Your task to perform on an android device: install app "Google Sheets" Image 0: 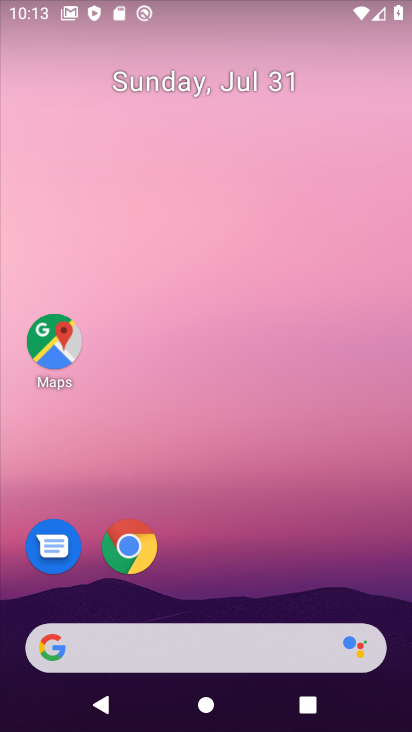
Step 0: drag from (219, 646) to (337, 10)
Your task to perform on an android device: install app "Google Sheets" Image 1: 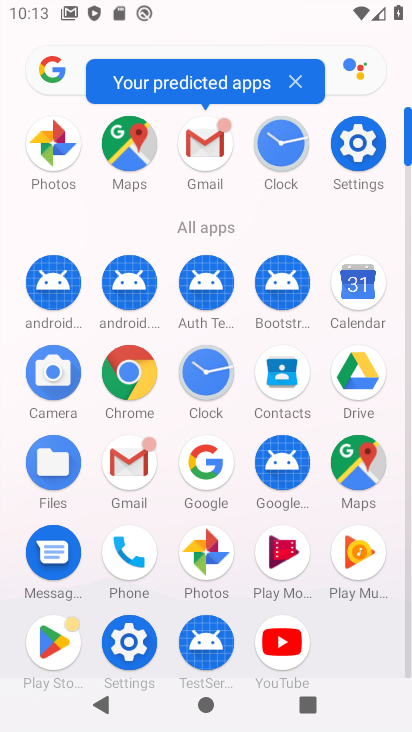
Step 1: click (363, 137)
Your task to perform on an android device: install app "Google Sheets" Image 2: 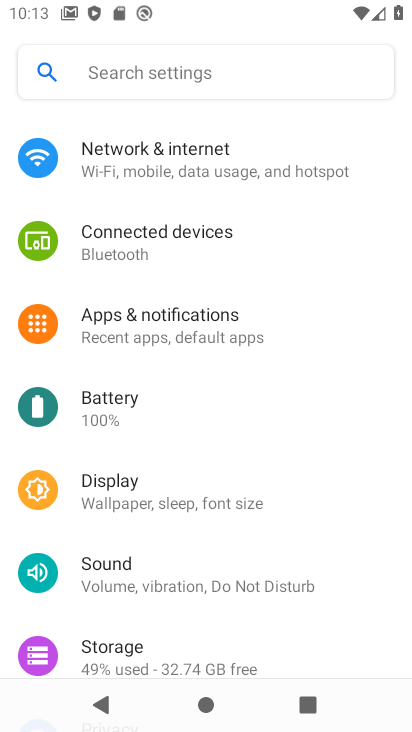
Step 2: press home button
Your task to perform on an android device: install app "Google Sheets" Image 3: 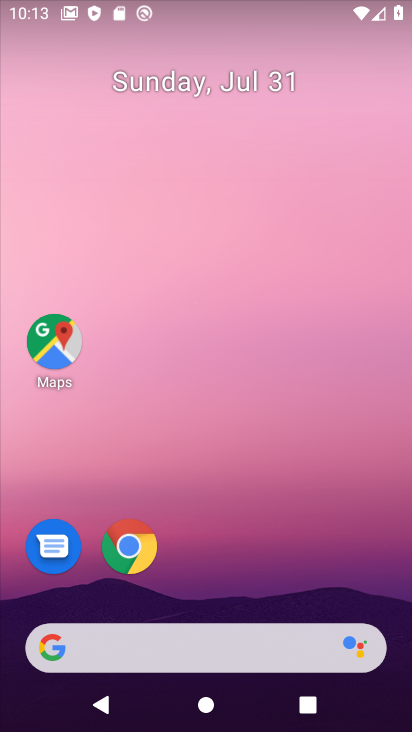
Step 3: drag from (234, 648) to (238, 45)
Your task to perform on an android device: install app "Google Sheets" Image 4: 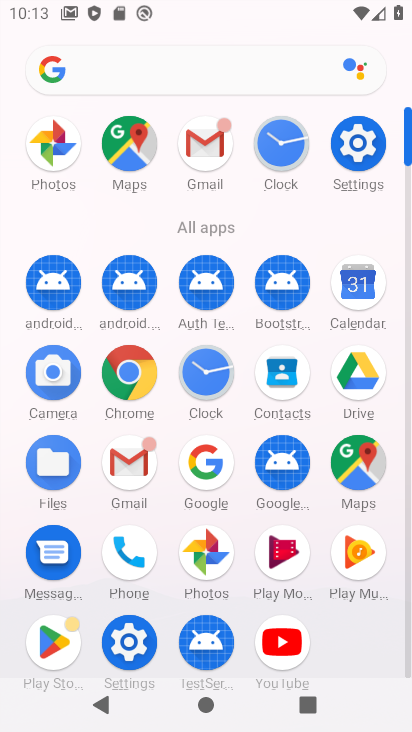
Step 4: click (47, 639)
Your task to perform on an android device: install app "Google Sheets" Image 5: 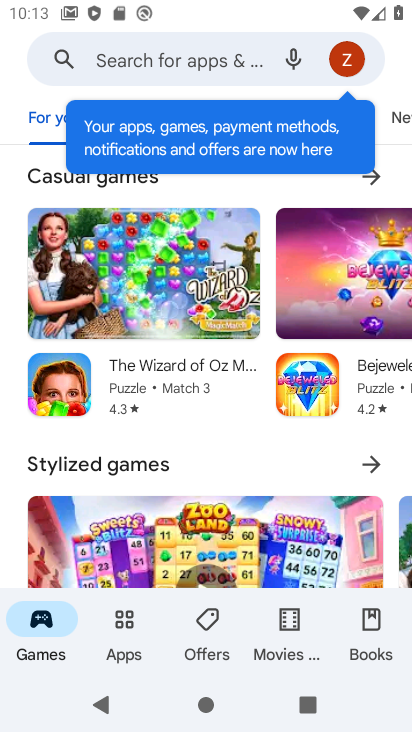
Step 5: click (217, 67)
Your task to perform on an android device: install app "Google Sheets" Image 6: 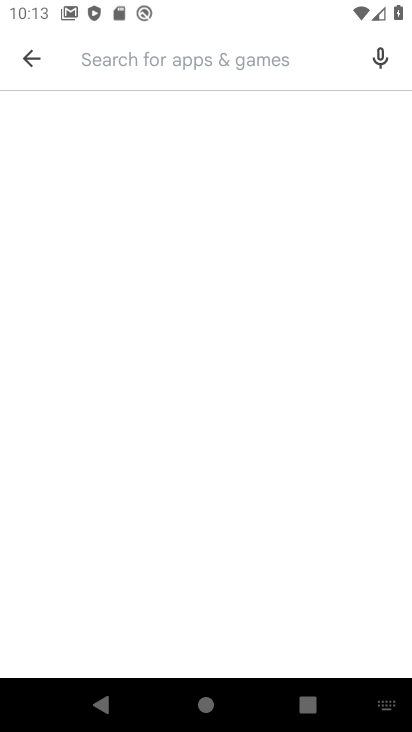
Step 6: type ""
Your task to perform on an android device: install app "Google Sheets" Image 7: 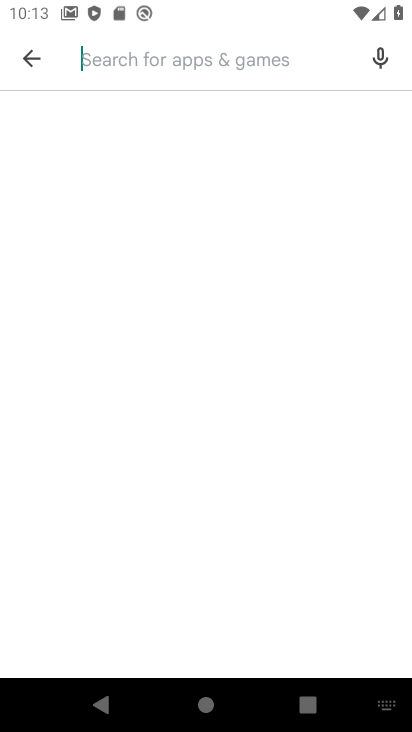
Step 7: type "google sheets"
Your task to perform on an android device: install app "Google Sheets" Image 8: 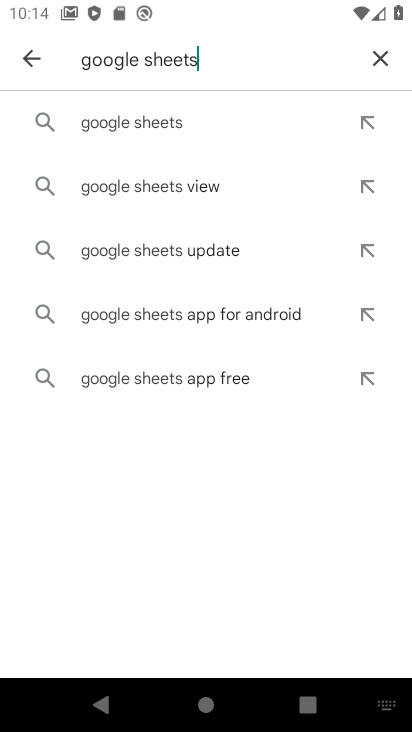
Step 8: click (186, 117)
Your task to perform on an android device: install app "Google Sheets" Image 9: 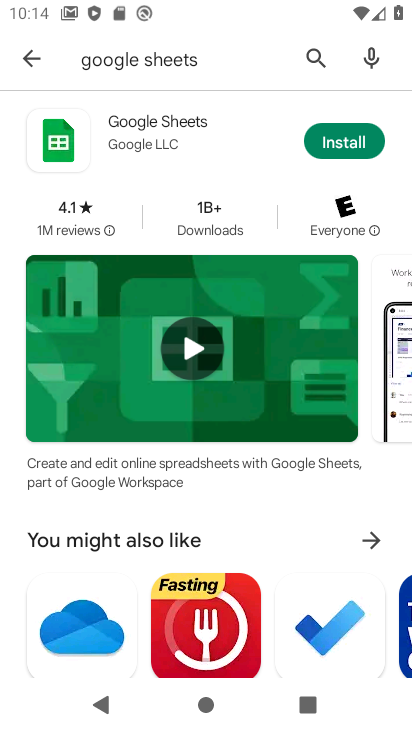
Step 9: click (356, 132)
Your task to perform on an android device: install app "Google Sheets" Image 10: 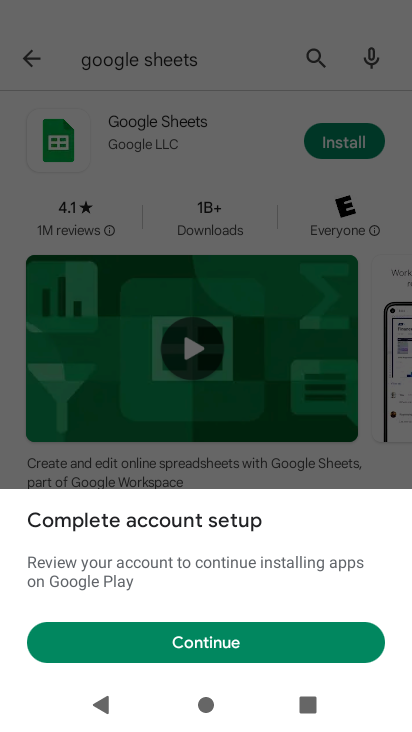
Step 10: click (158, 628)
Your task to perform on an android device: install app "Google Sheets" Image 11: 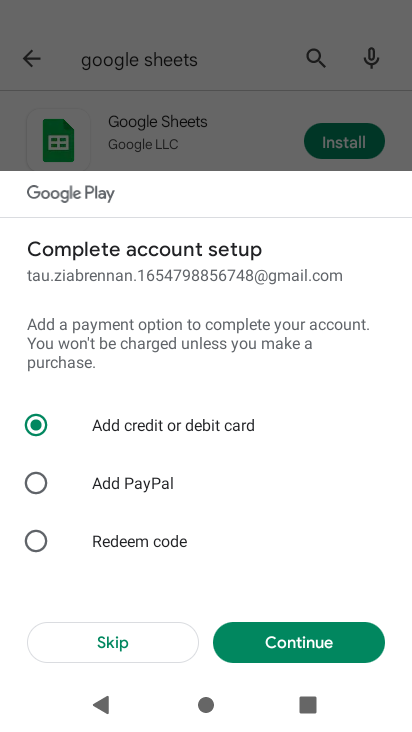
Step 11: click (125, 645)
Your task to perform on an android device: install app "Google Sheets" Image 12: 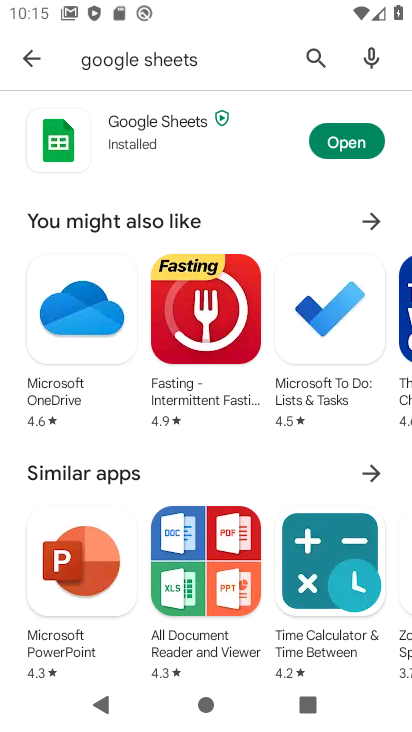
Step 12: task complete